Your task to perform on an android device: change the upload size in google photos Image 0: 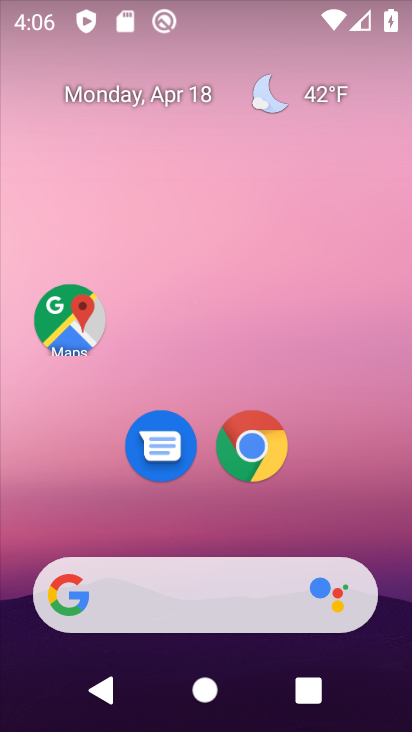
Step 0: drag from (349, 511) to (354, 185)
Your task to perform on an android device: change the upload size in google photos Image 1: 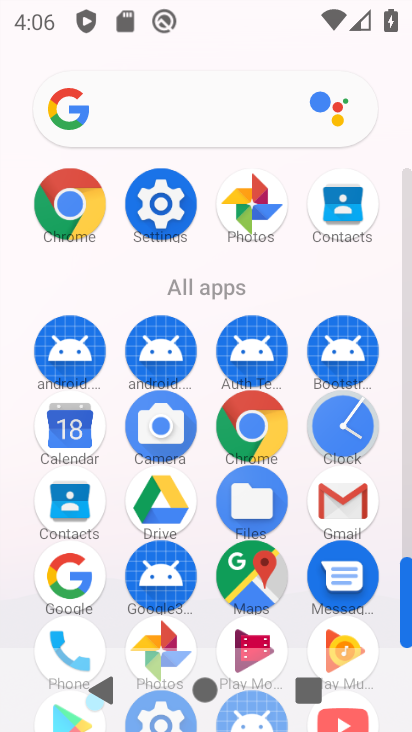
Step 1: drag from (212, 540) to (239, 327)
Your task to perform on an android device: change the upload size in google photos Image 2: 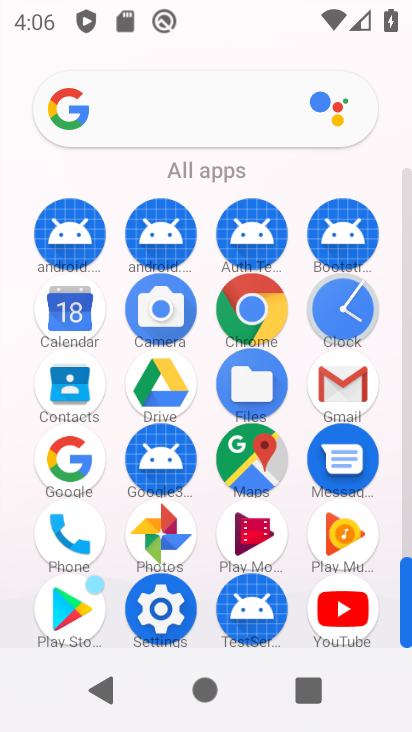
Step 2: click (170, 543)
Your task to perform on an android device: change the upload size in google photos Image 3: 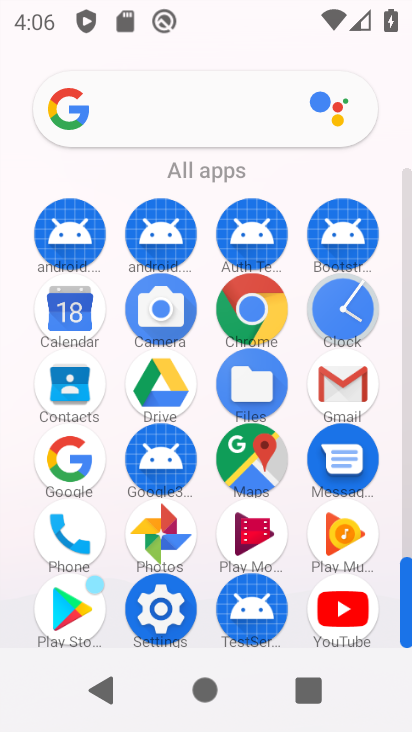
Step 3: drag from (217, 472) to (301, 228)
Your task to perform on an android device: change the upload size in google photos Image 4: 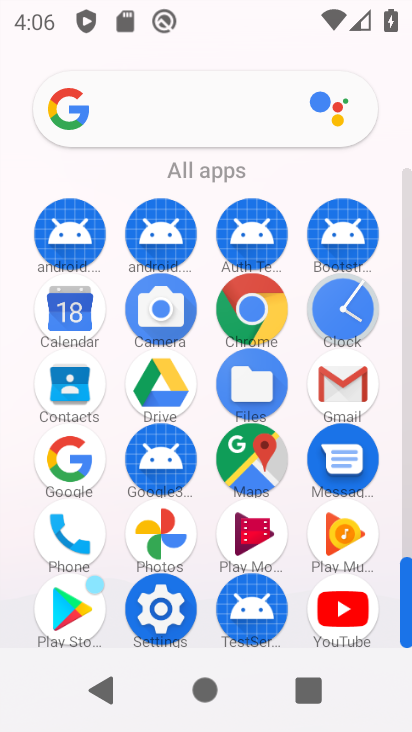
Step 4: click (171, 527)
Your task to perform on an android device: change the upload size in google photos Image 5: 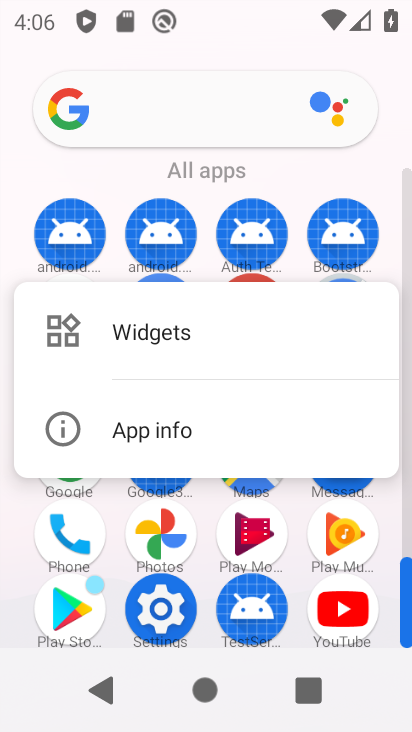
Step 5: click (159, 536)
Your task to perform on an android device: change the upload size in google photos Image 6: 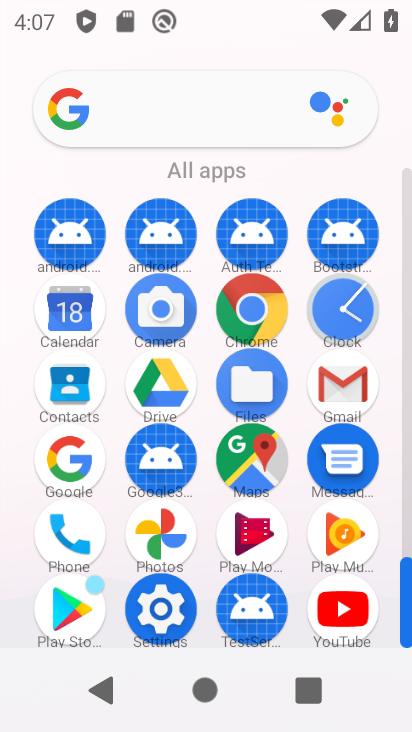
Step 6: click (173, 549)
Your task to perform on an android device: change the upload size in google photos Image 7: 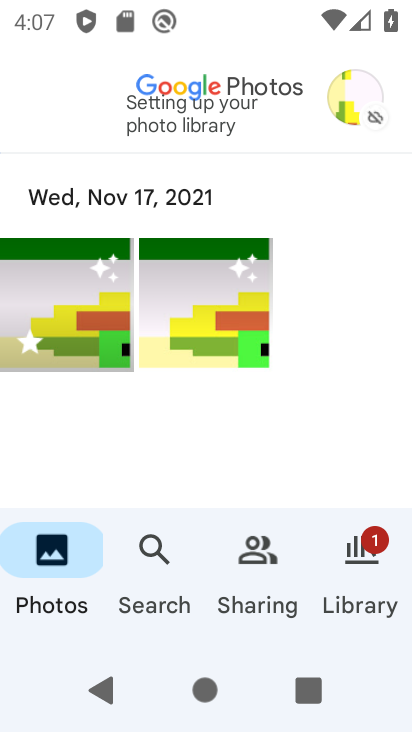
Step 7: click (371, 94)
Your task to perform on an android device: change the upload size in google photos Image 8: 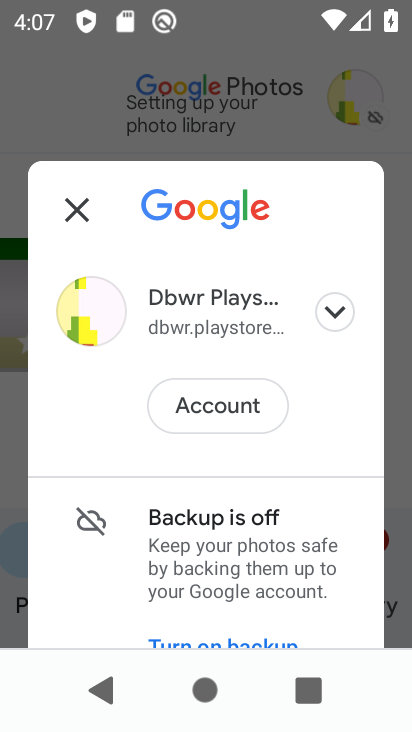
Step 8: drag from (224, 576) to (275, 146)
Your task to perform on an android device: change the upload size in google photos Image 9: 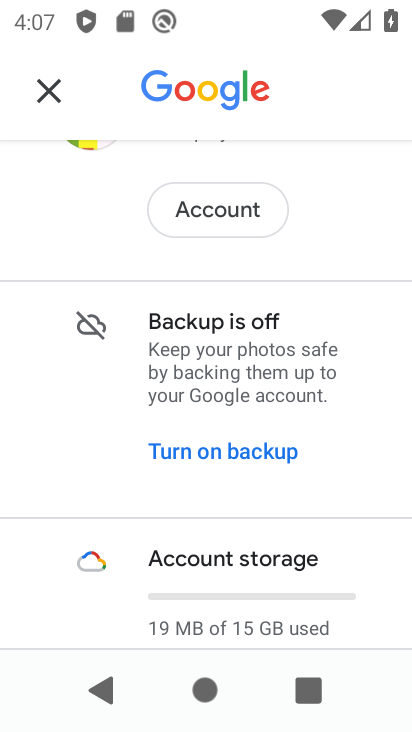
Step 9: drag from (240, 549) to (283, 102)
Your task to perform on an android device: change the upload size in google photos Image 10: 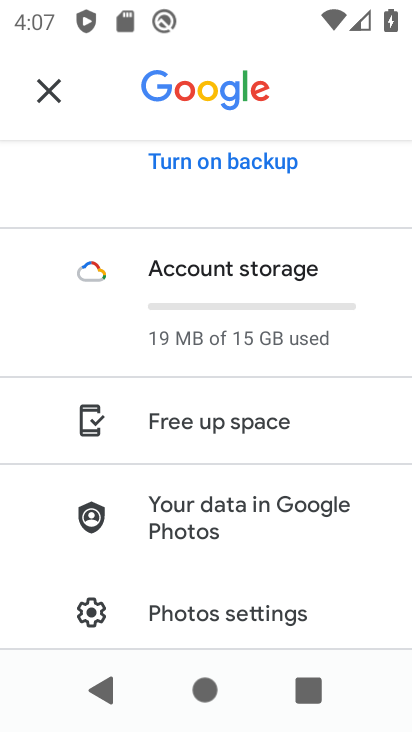
Step 10: click (198, 606)
Your task to perform on an android device: change the upload size in google photos Image 11: 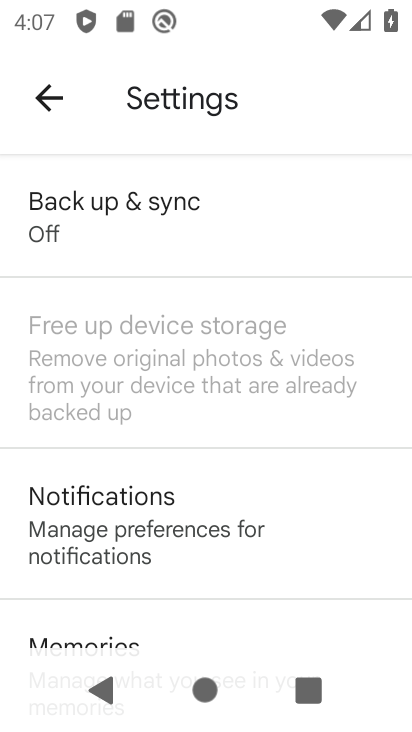
Step 11: click (232, 212)
Your task to perform on an android device: change the upload size in google photos Image 12: 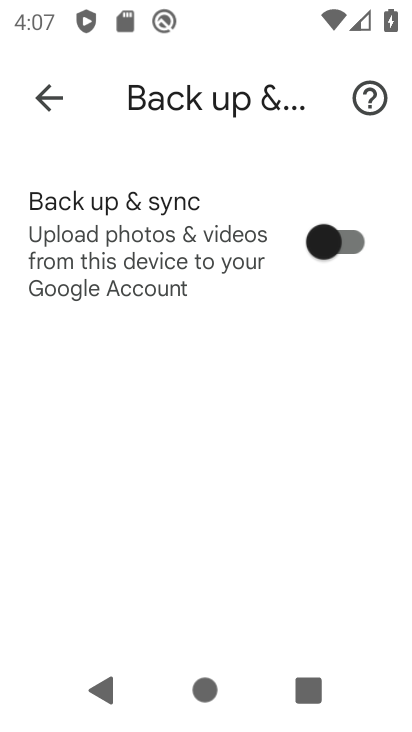
Step 12: task complete